Your task to perform on an android device: Open Google Chrome and open the bookmarks view Image 0: 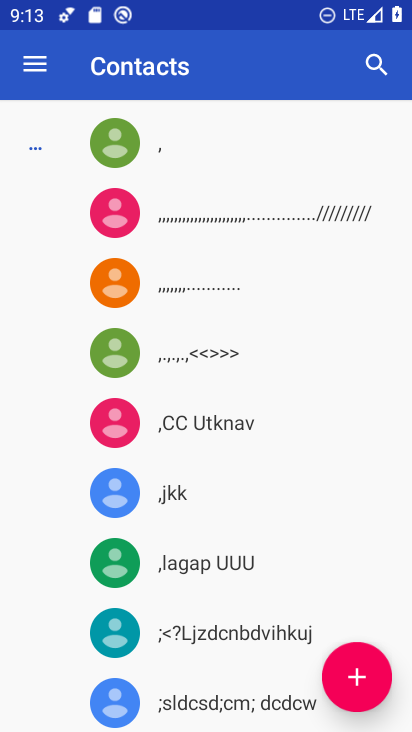
Step 0: press home button
Your task to perform on an android device: Open Google Chrome and open the bookmarks view Image 1: 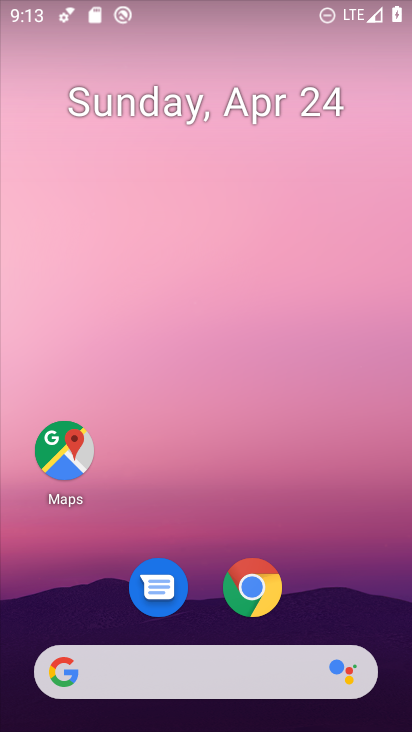
Step 1: drag from (351, 329) to (362, 203)
Your task to perform on an android device: Open Google Chrome and open the bookmarks view Image 2: 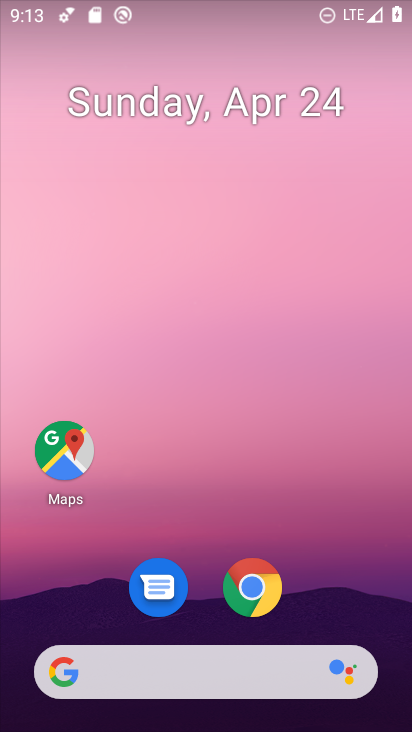
Step 2: click (257, 592)
Your task to perform on an android device: Open Google Chrome and open the bookmarks view Image 3: 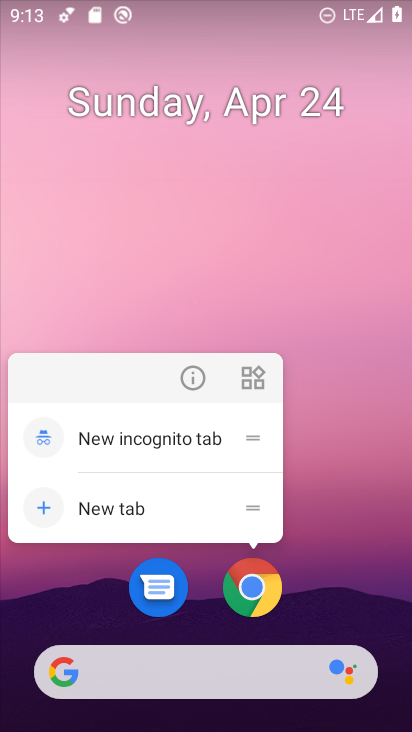
Step 3: click (257, 590)
Your task to perform on an android device: Open Google Chrome and open the bookmarks view Image 4: 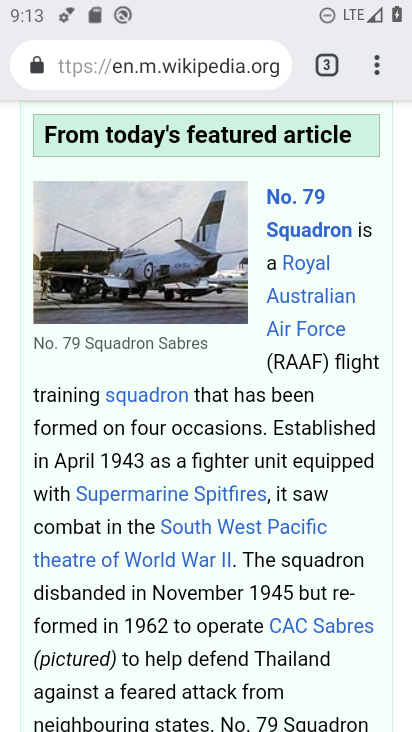
Step 4: click (381, 71)
Your task to perform on an android device: Open Google Chrome and open the bookmarks view Image 5: 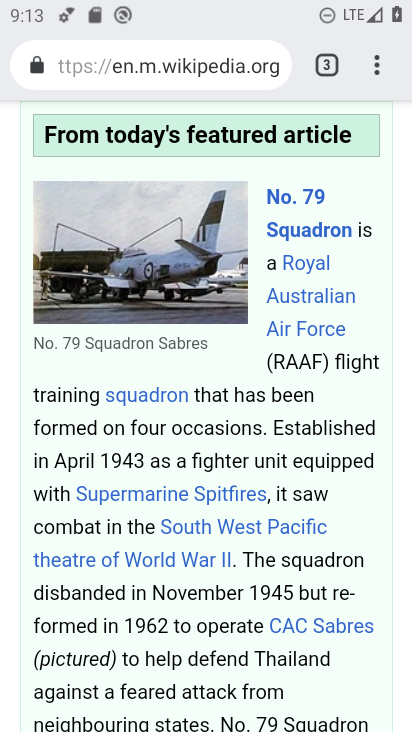
Step 5: task complete